Your task to perform on an android device: What's the speed of light? Image 0: 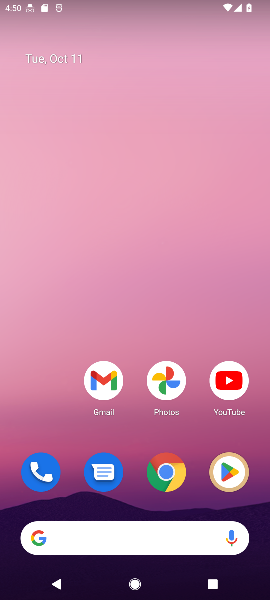
Step 0: click (157, 469)
Your task to perform on an android device: What's the speed of light? Image 1: 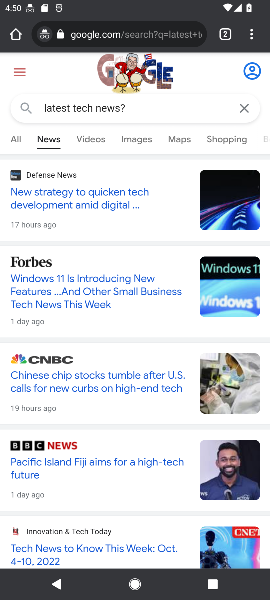
Step 1: click (117, 44)
Your task to perform on an android device: What's the speed of light? Image 2: 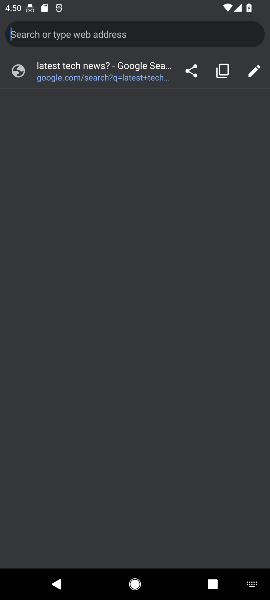
Step 2: type "What's the speed of light?"
Your task to perform on an android device: What's the speed of light? Image 3: 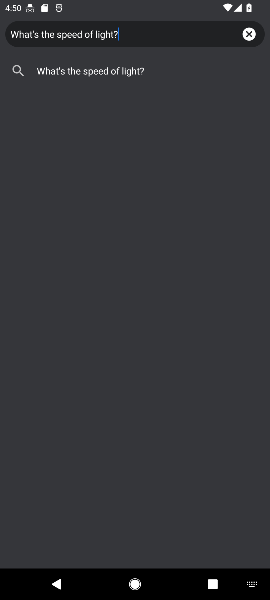
Step 3: click (100, 77)
Your task to perform on an android device: What's the speed of light? Image 4: 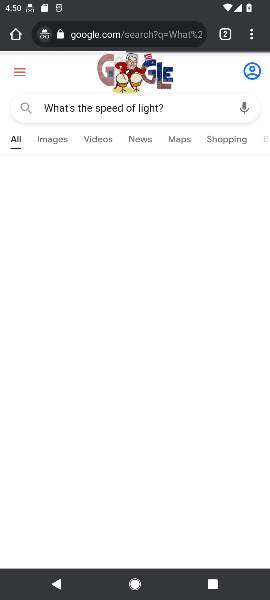
Step 4: click (100, 77)
Your task to perform on an android device: What's the speed of light? Image 5: 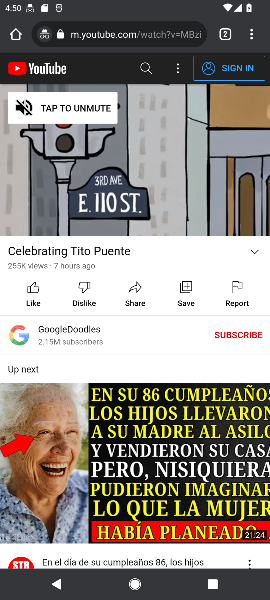
Step 5: task complete